Your task to perform on an android device: open wifi settings Image 0: 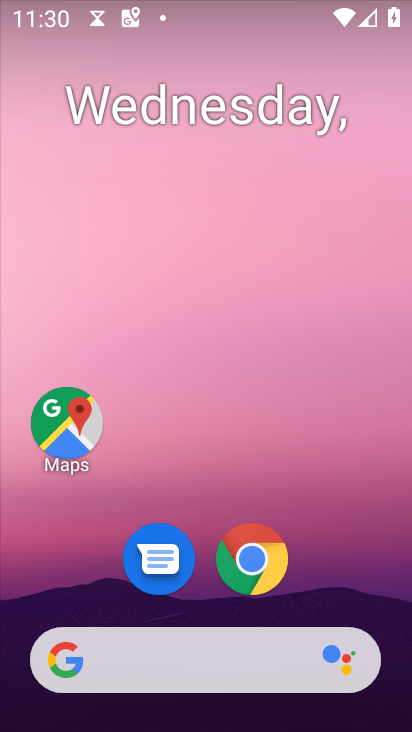
Step 0: drag from (363, 593) to (309, 209)
Your task to perform on an android device: open wifi settings Image 1: 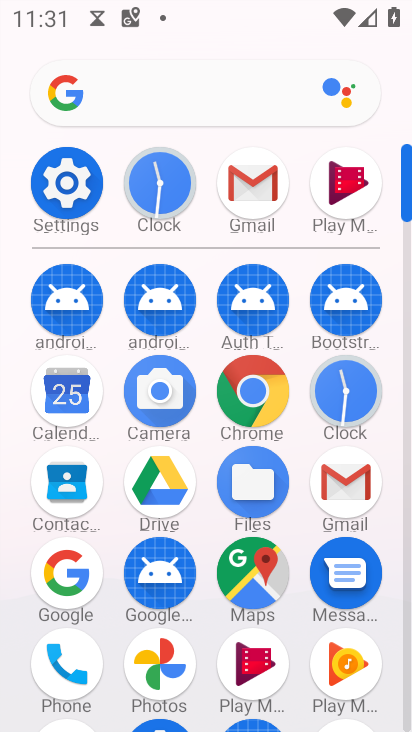
Step 1: click (64, 165)
Your task to perform on an android device: open wifi settings Image 2: 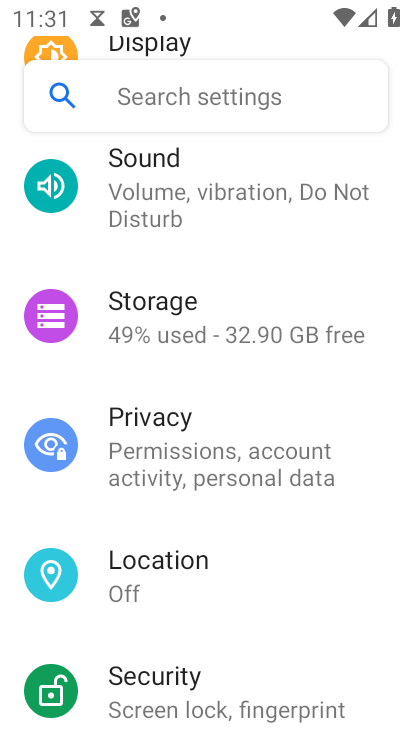
Step 2: drag from (280, 223) to (279, 517)
Your task to perform on an android device: open wifi settings Image 3: 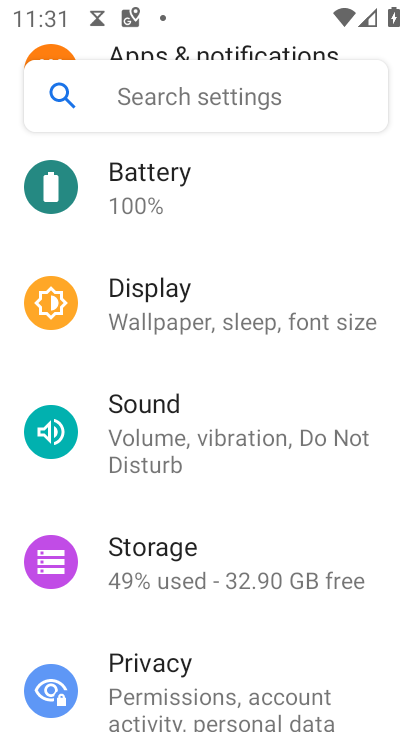
Step 3: drag from (249, 210) to (252, 404)
Your task to perform on an android device: open wifi settings Image 4: 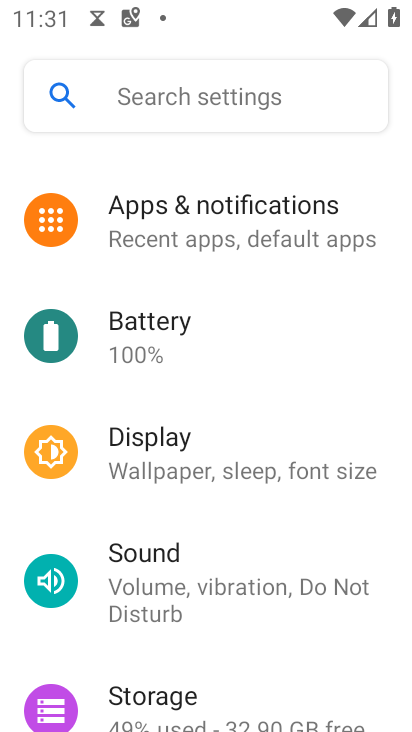
Step 4: drag from (211, 265) to (208, 456)
Your task to perform on an android device: open wifi settings Image 5: 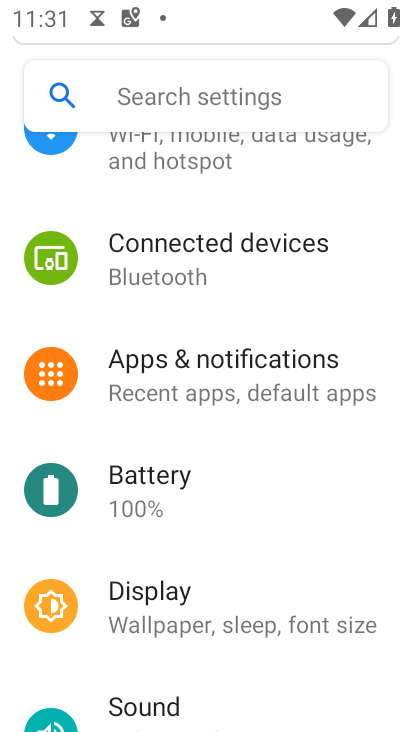
Step 5: click (248, 162)
Your task to perform on an android device: open wifi settings Image 6: 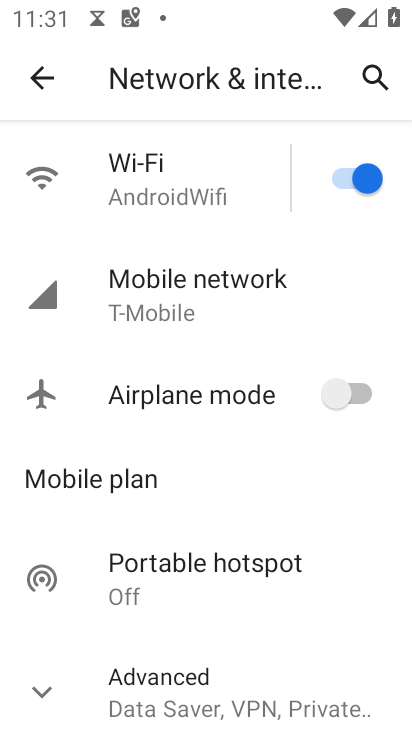
Step 6: click (220, 179)
Your task to perform on an android device: open wifi settings Image 7: 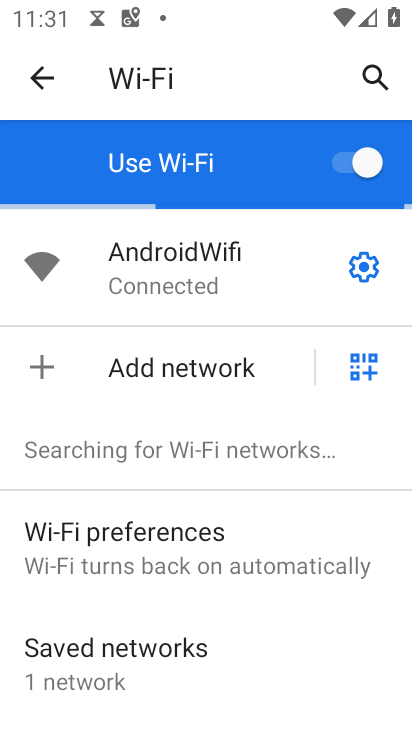
Step 7: task complete